Your task to perform on an android device: How big is a giraffe? Image 0: 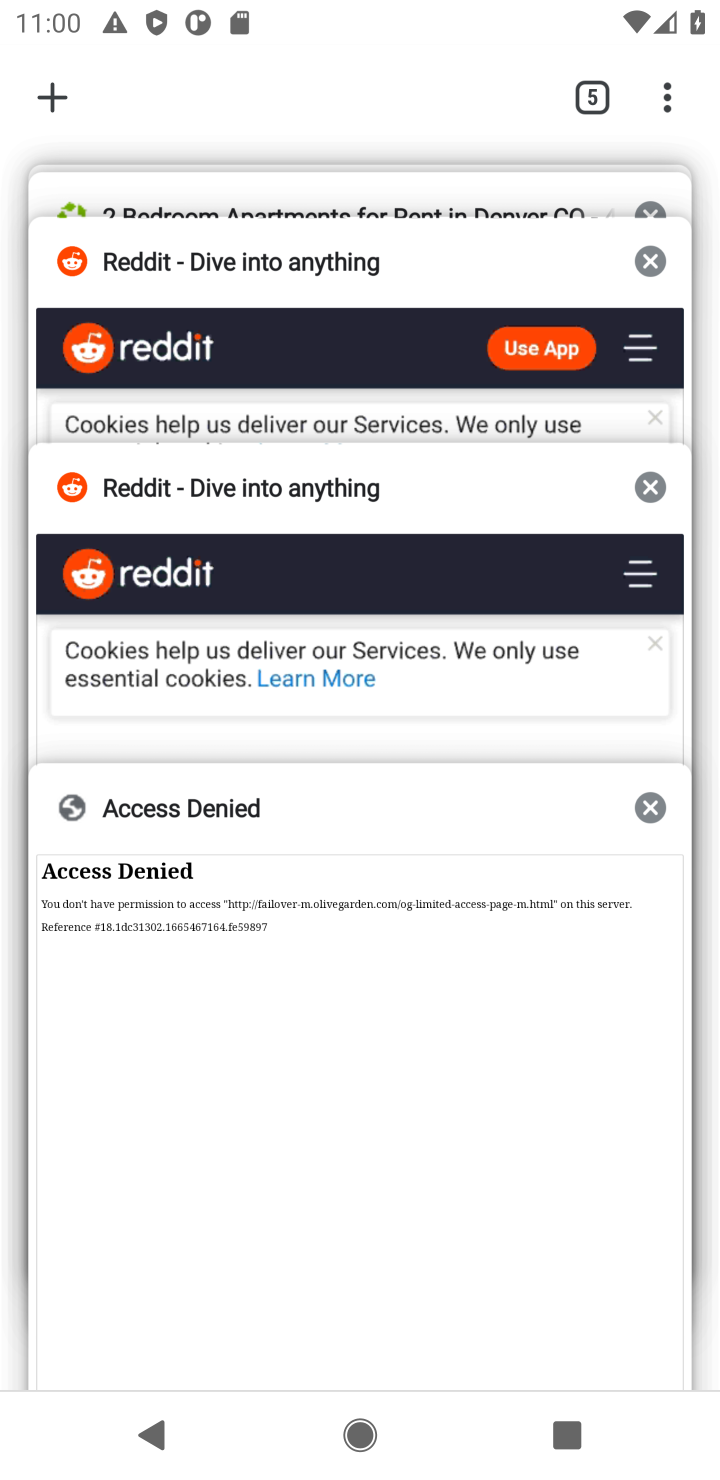
Step 0: click (36, 82)
Your task to perform on an android device: How big is a giraffe? Image 1: 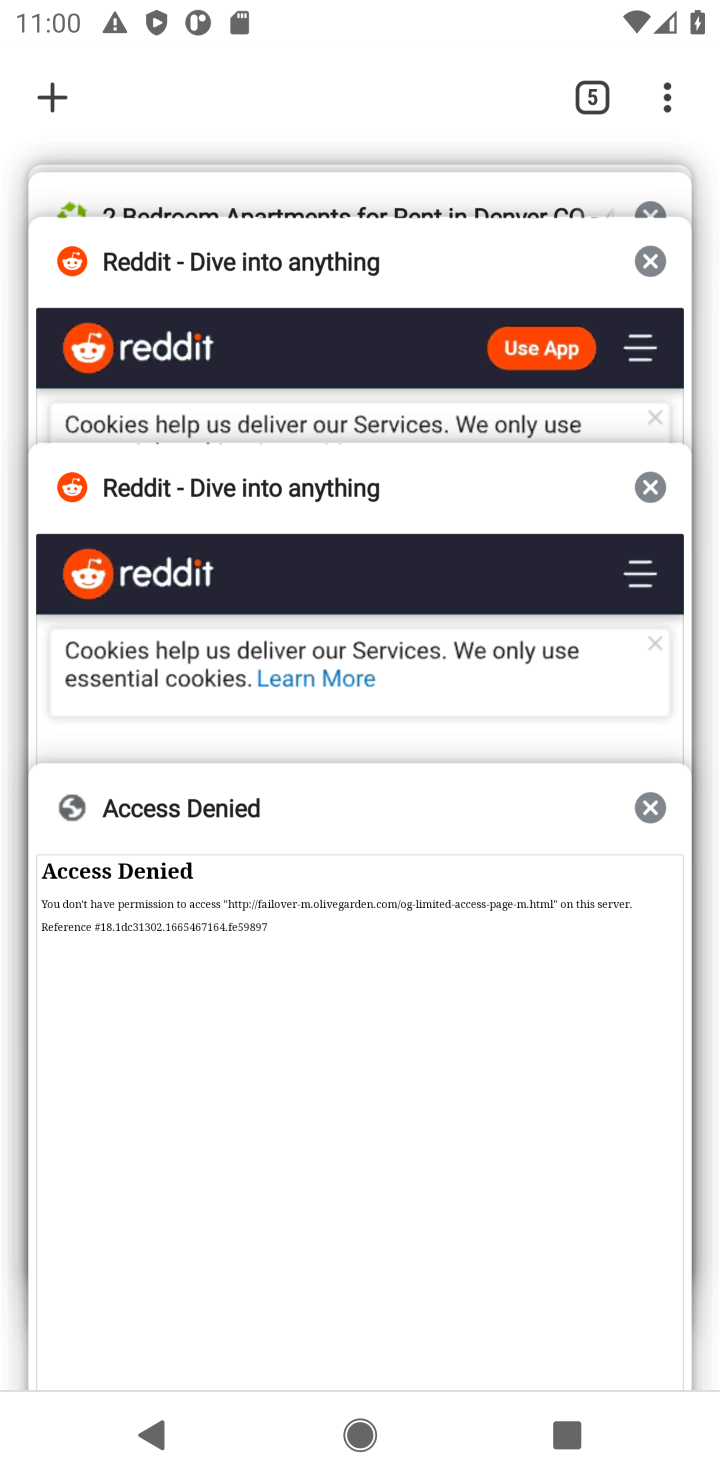
Step 1: click (63, 109)
Your task to perform on an android device: How big is a giraffe? Image 2: 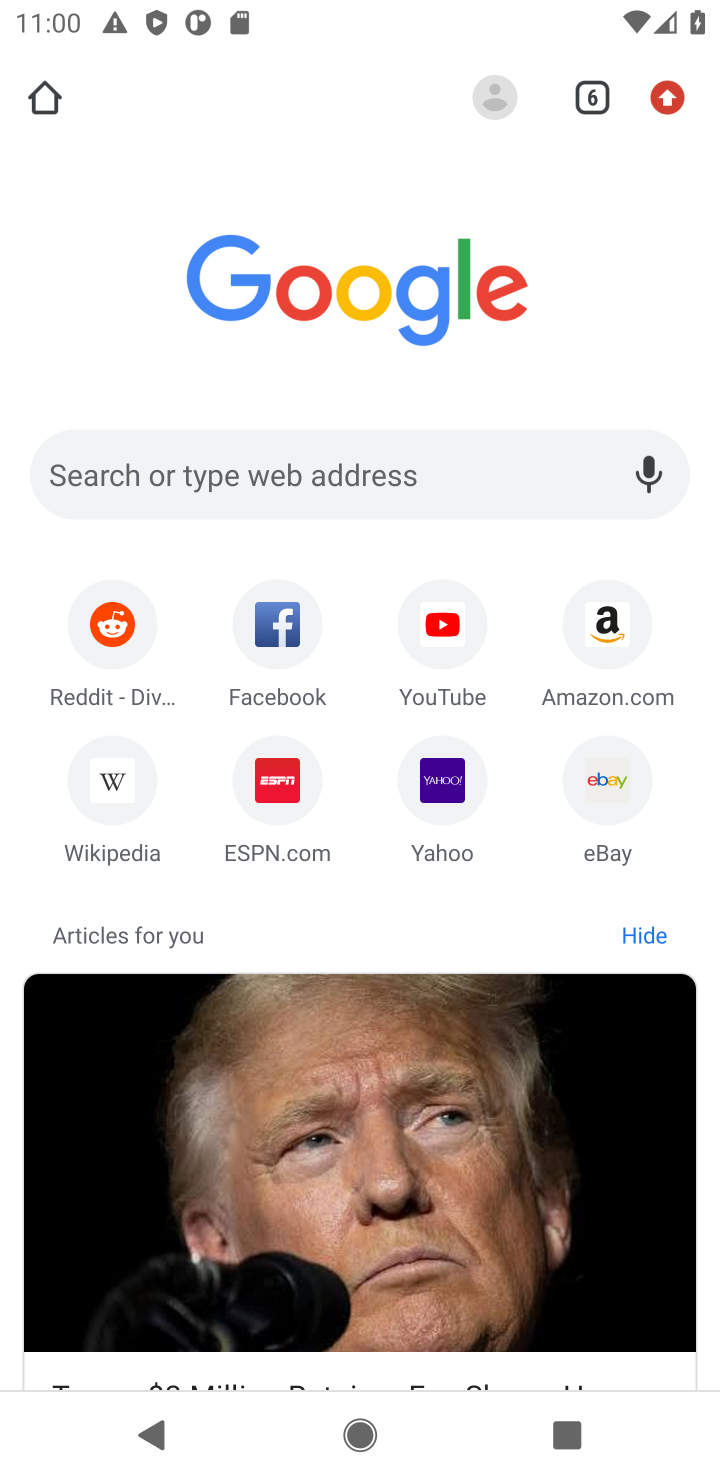
Step 2: type "How big is a giraffe?"
Your task to perform on an android device: How big is a giraffe? Image 3: 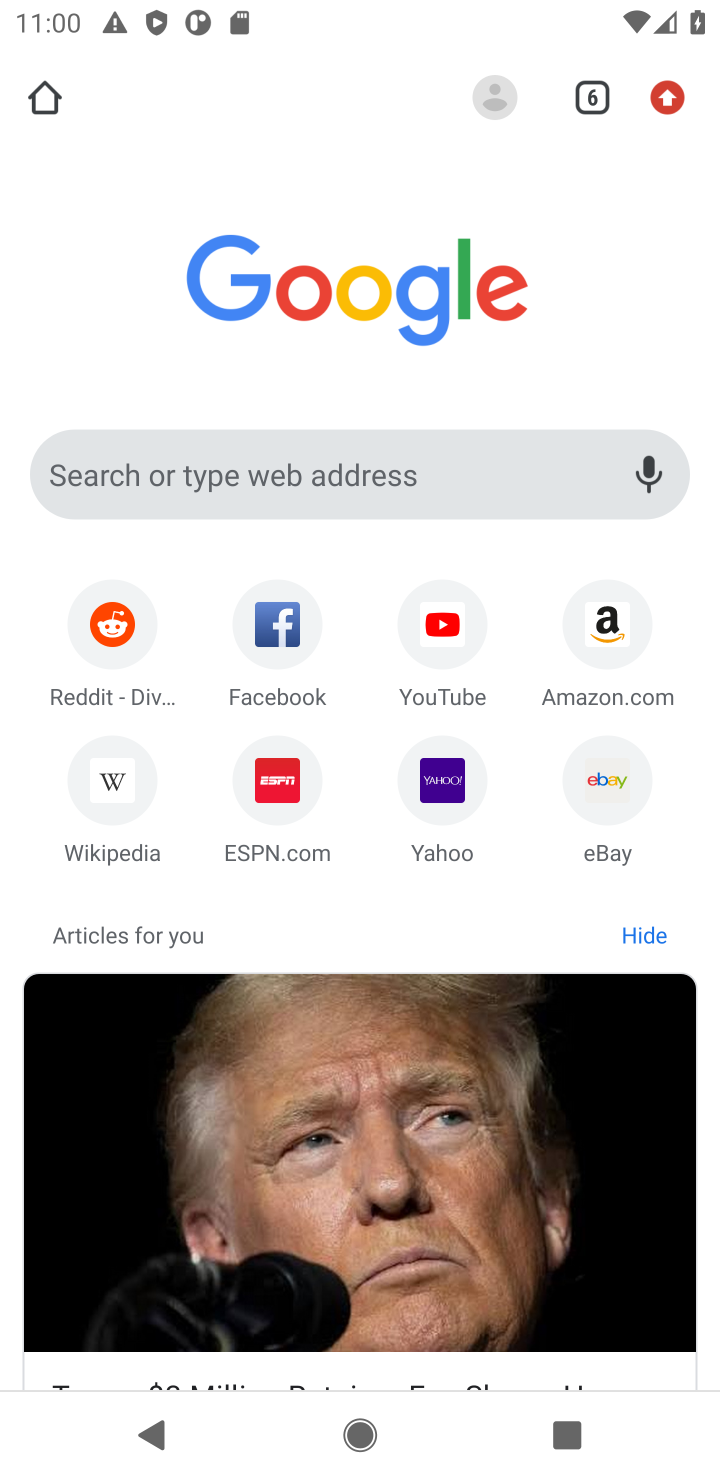
Step 3: type ""
Your task to perform on an android device: How big is a giraffe? Image 4: 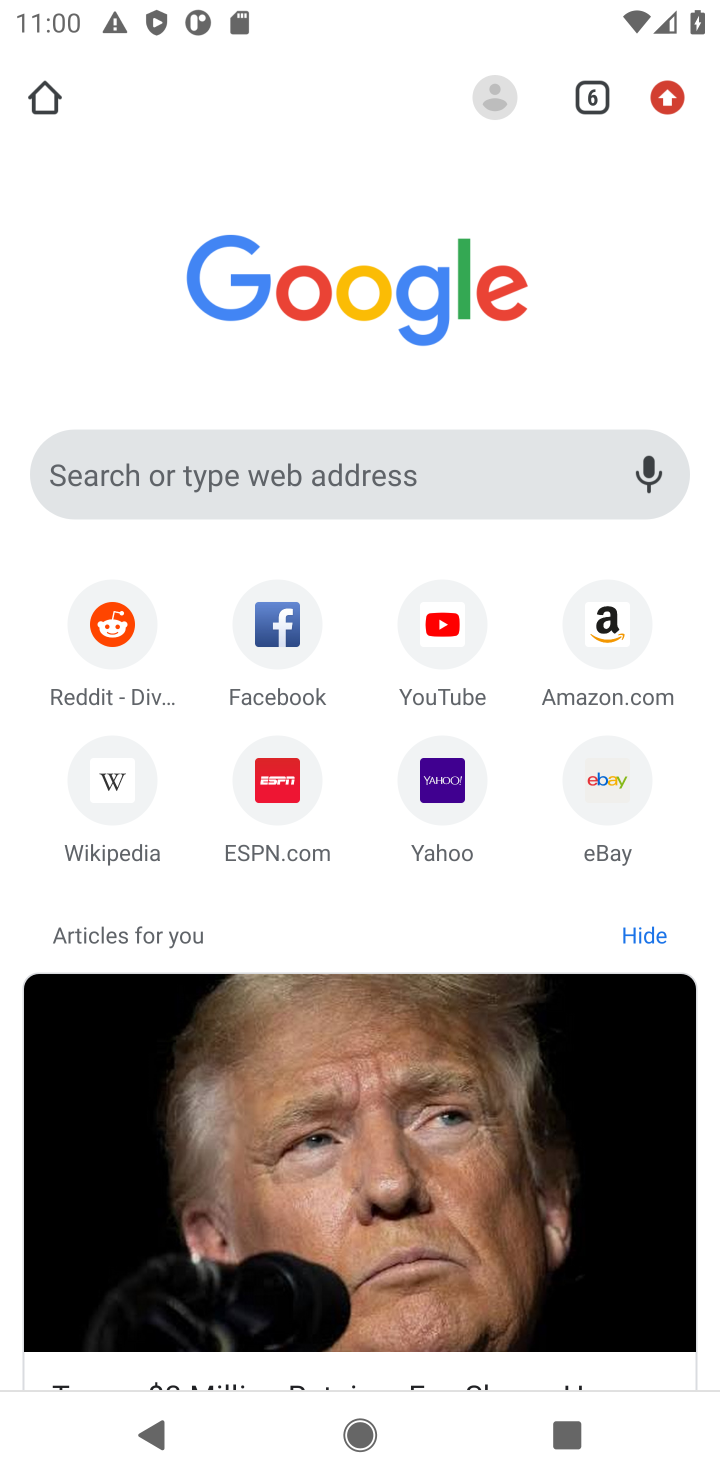
Step 4: click (265, 474)
Your task to perform on an android device: How big is a giraffe? Image 5: 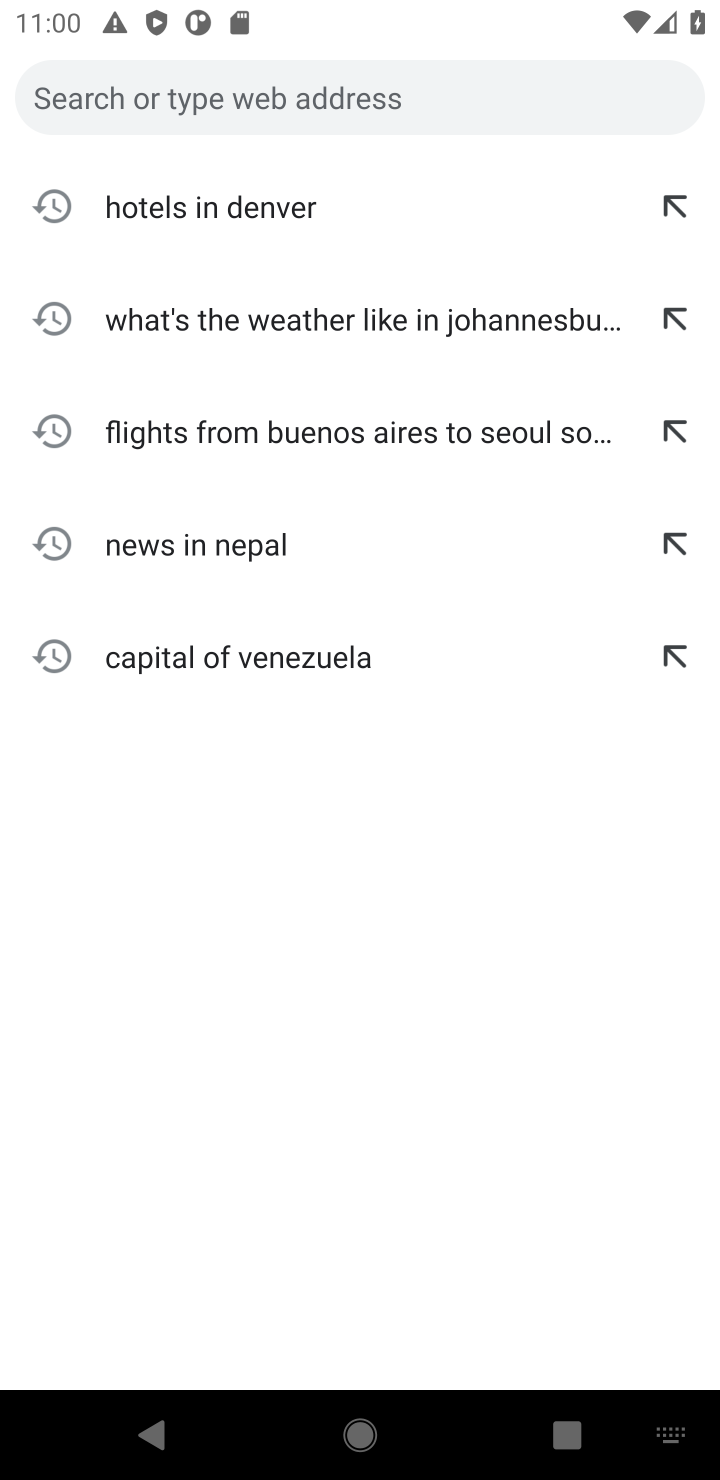
Step 5: type "How big is a giraffe?"
Your task to perform on an android device: How big is a giraffe? Image 6: 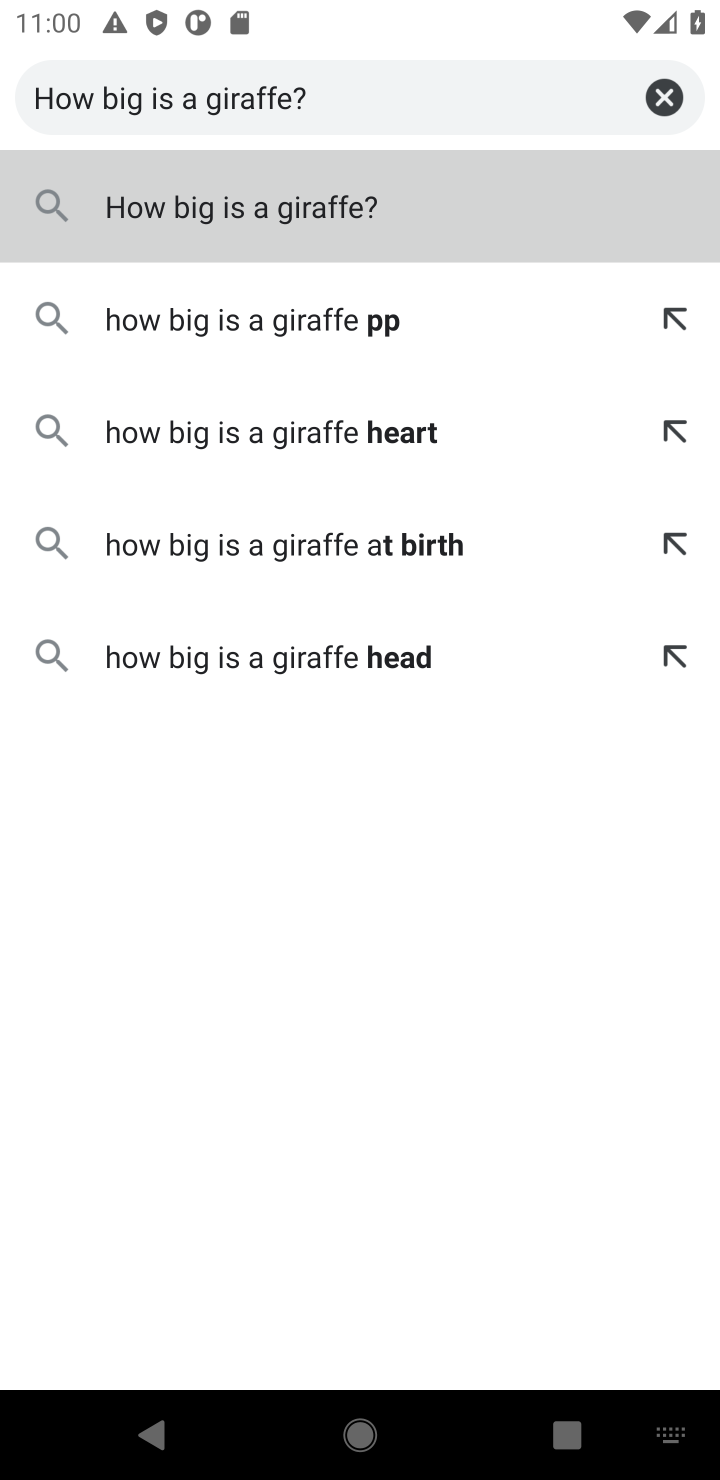
Step 6: click (289, 228)
Your task to perform on an android device: How big is a giraffe? Image 7: 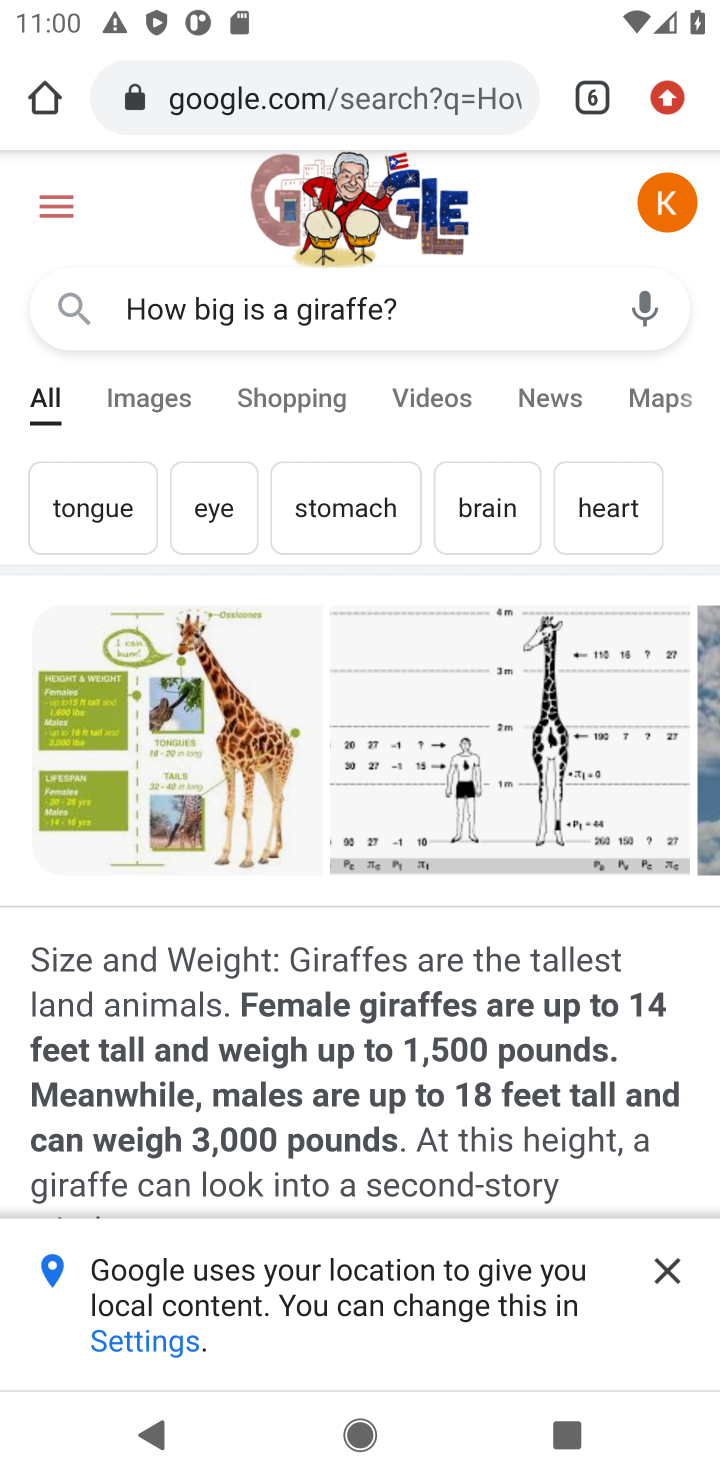
Step 7: task complete